Your task to perform on an android device: Open Google Chrome and click the shortcut for Amazon.com Image 0: 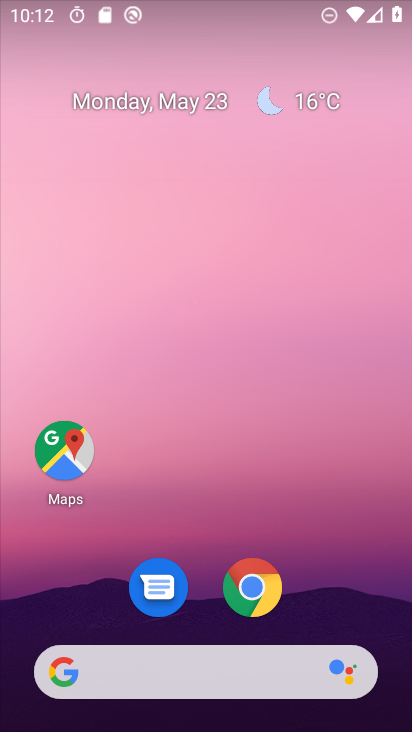
Step 0: click (250, 598)
Your task to perform on an android device: Open Google Chrome and click the shortcut for Amazon.com Image 1: 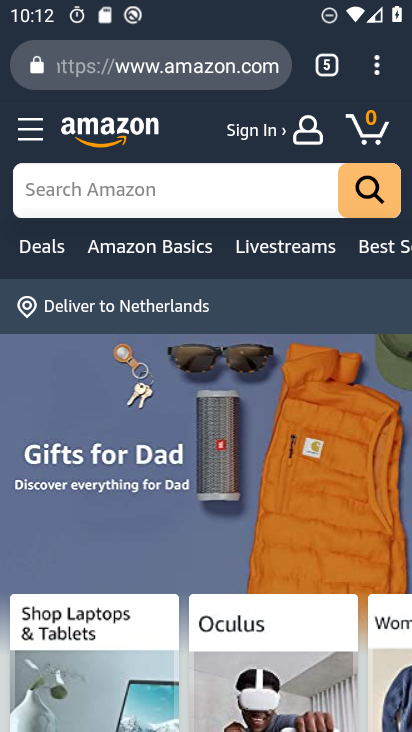
Step 1: task complete